Your task to perform on an android device: turn on the 12-hour format for clock Image 0: 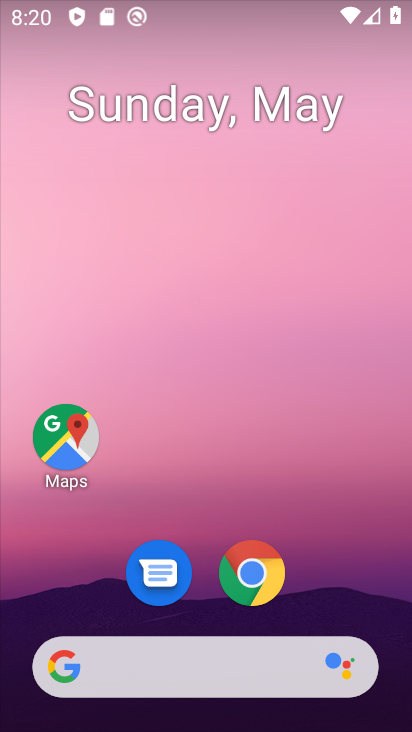
Step 0: drag from (379, 631) to (352, 129)
Your task to perform on an android device: turn on the 12-hour format for clock Image 1: 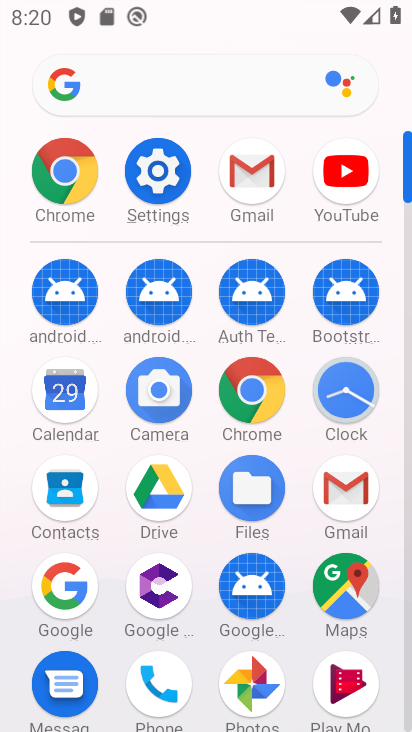
Step 1: click (336, 416)
Your task to perform on an android device: turn on the 12-hour format for clock Image 2: 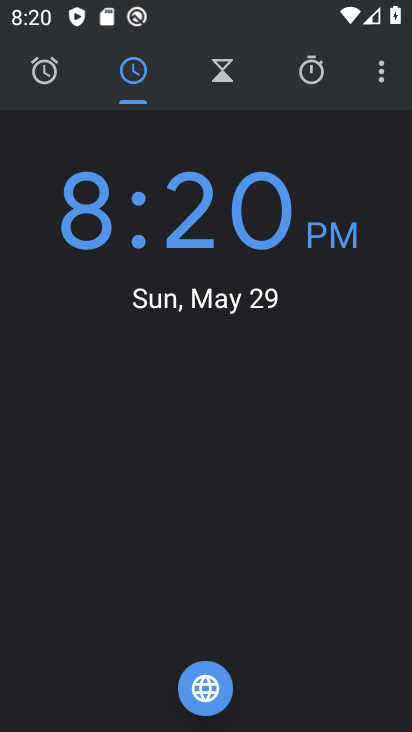
Step 2: click (387, 96)
Your task to perform on an android device: turn on the 12-hour format for clock Image 3: 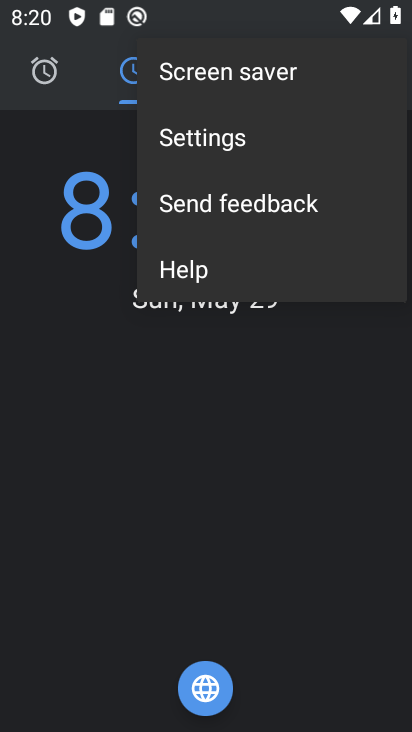
Step 3: click (334, 146)
Your task to perform on an android device: turn on the 12-hour format for clock Image 4: 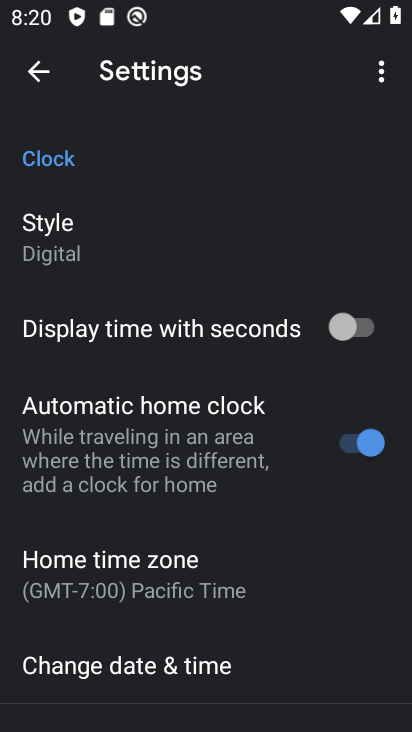
Step 4: drag from (262, 607) to (259, 313)
Your task to perform on an android device: turn on the 12-hour format for clock Image 5: 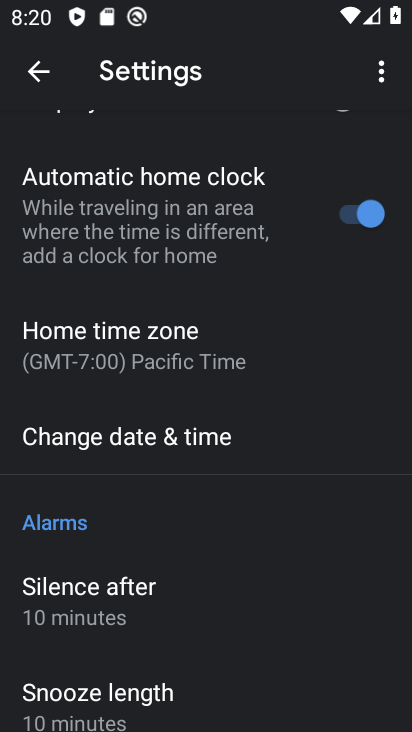
Step 5: click (266, 438)
Your task to perform on an android device: turn on the 12-hour format for clock Image 6: 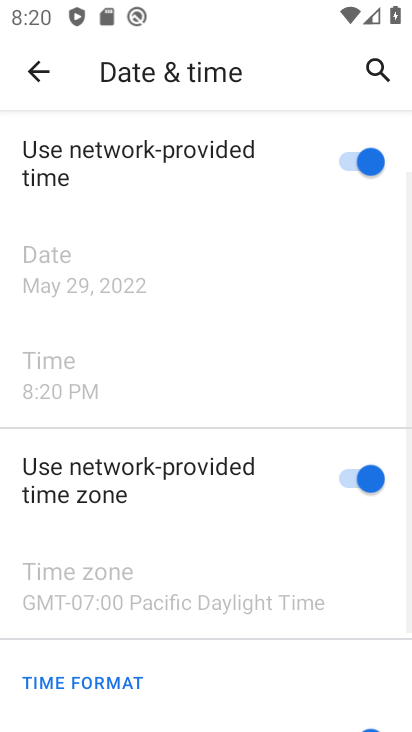
Step 6: task complete